Your task to perform on an android device: toggle wifi Image 0: 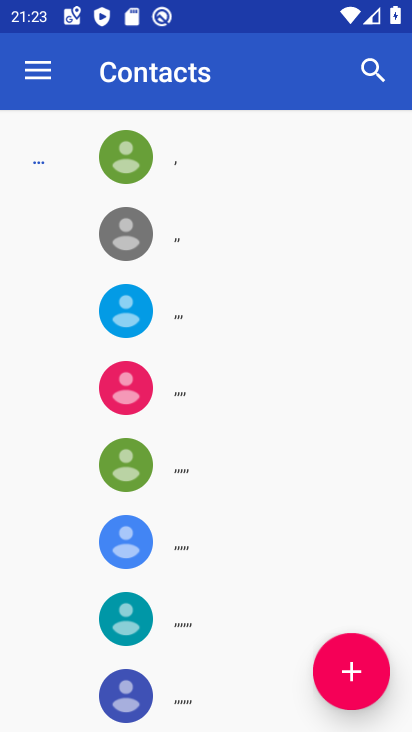
Step 0: press home button
Your task to perform on an android device: toggle wifi Image 1: 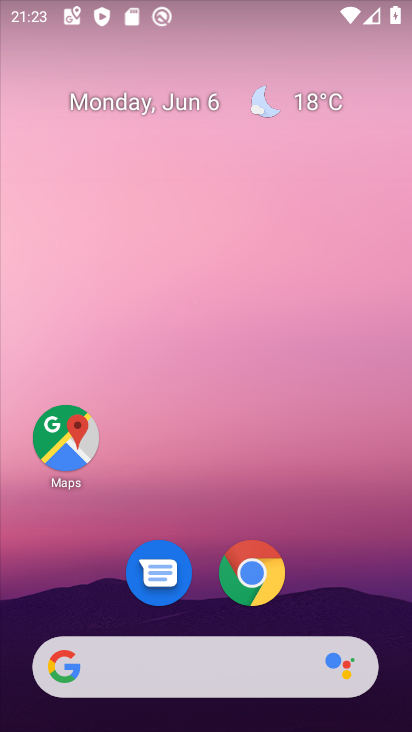
Step 1: drag from (385, 601) to (299, 149)
Your task to perform on an android device: toggle wifi Image 2: 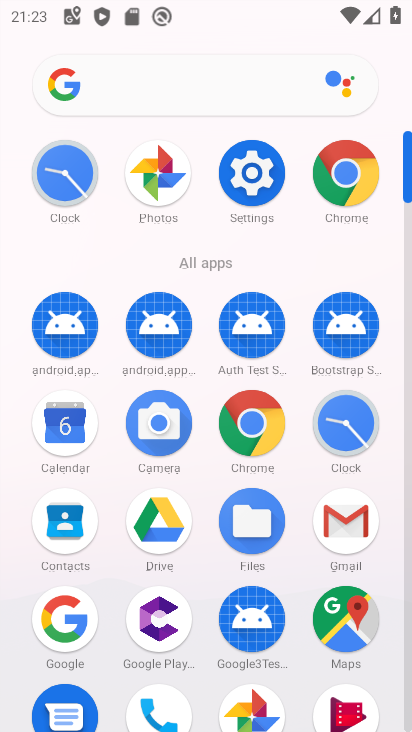
Step 2: click (253, 156)
Your task to perform on an android device: toggle wifi Image 3: 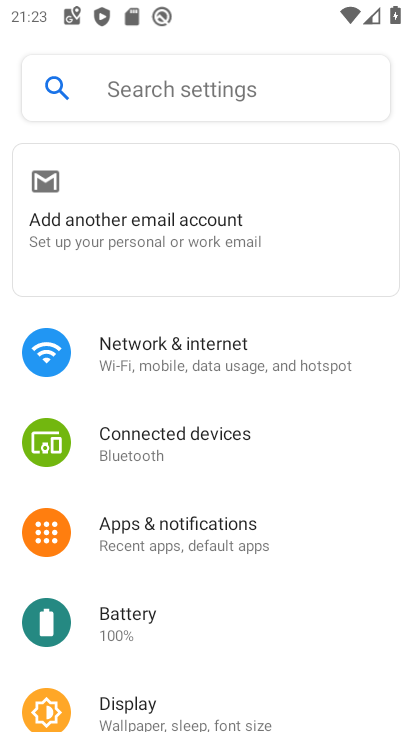
Step 3: click (268, 374)
Your task to perform on an android device: toggle wifi Image 4: 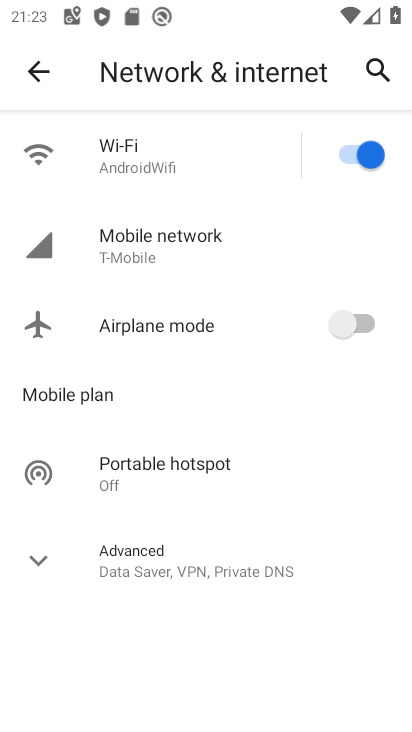
Step 4: click (361, 152)
Your task to perform on an android device: toggle wifi Image 5: 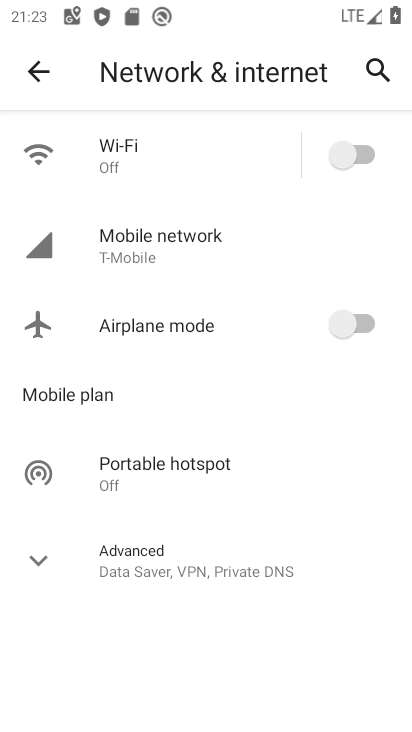
Step 5: task complete